Your task to perform on an android device: turn on notifications settings in the gmail app Image 0: 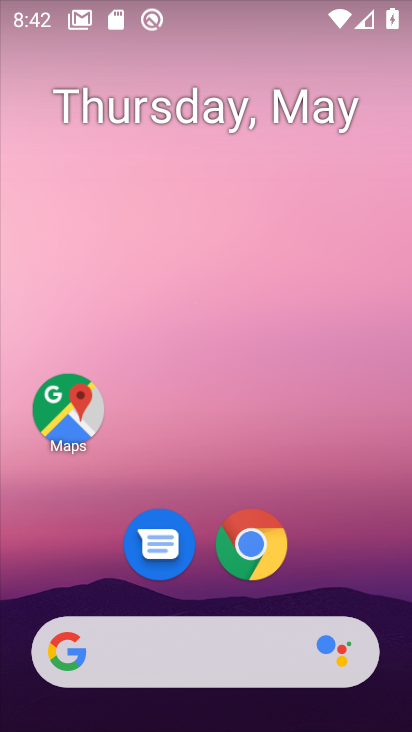
Step 0: drag from (216, 599) to (173, 66)
Your task to perform on an android device: turn on notifications settings in the gmail app Image 1: 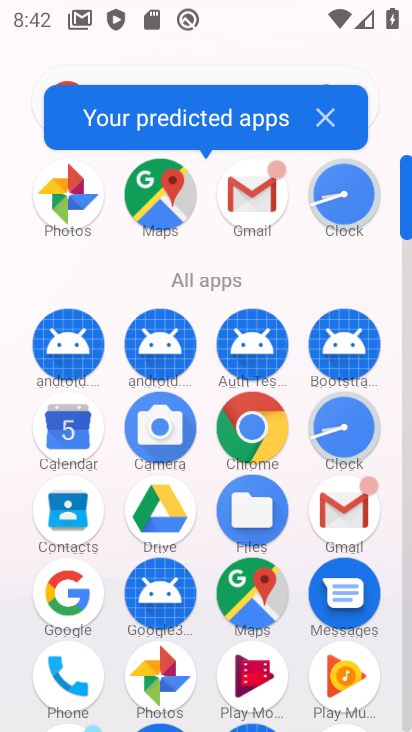
Step 1: click (336, 509)
Your task to perform on an android device: turn on notifications settings in the gmail app Image 2: 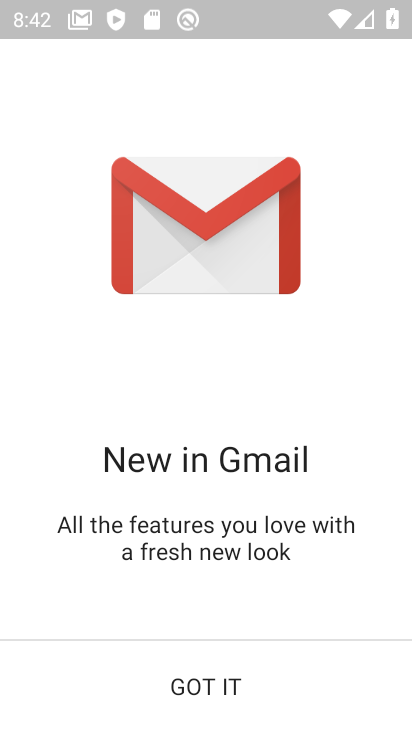
Step 2: click (212, 670)
Your task to perform on an android device: turn on notifications settings in the gmail app Image 3: 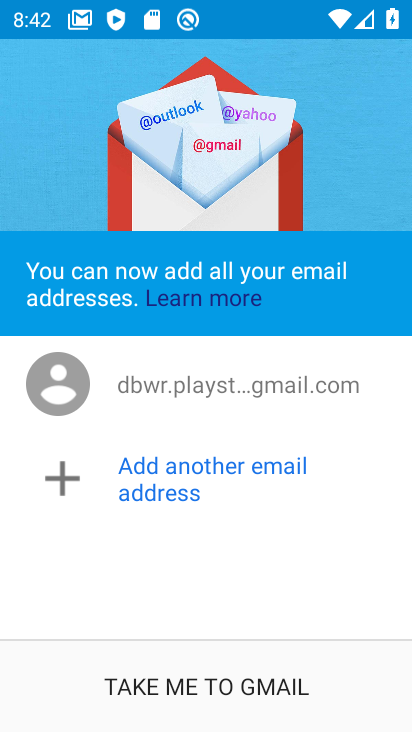
Step 3: click (240, 686)
Your task to perform on an android device: turn on notifications settings in the gmail app Image 4: 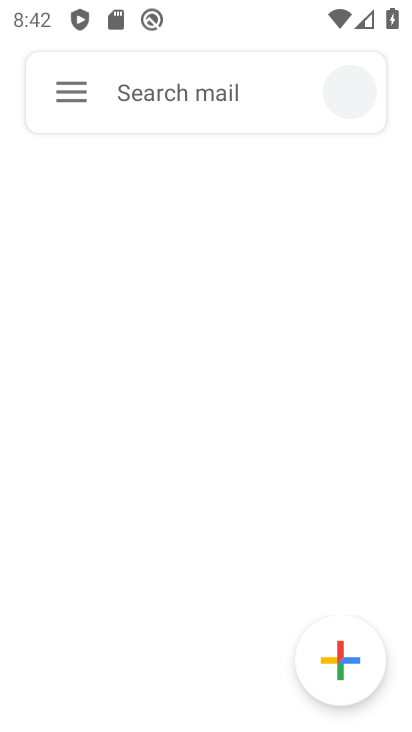
Step 4: click (70, 98)
Your task to perform on an android device: turn on notifications settings in the gmail app Image 5: 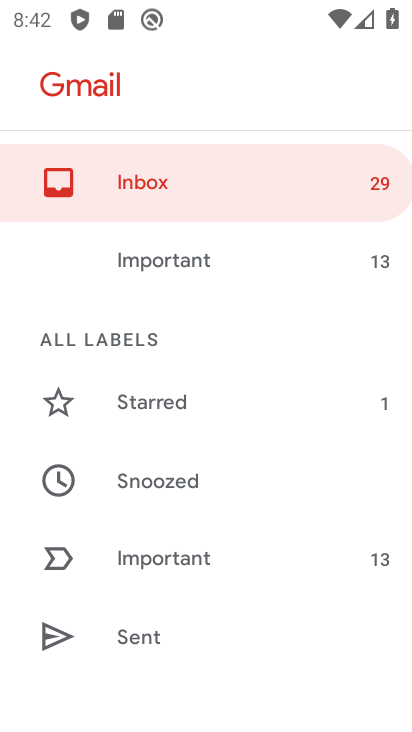
Step 5: drag from (165, 606) to (145, 125)
Your task to perform on an android device: turn on notifications settings in the gmail app Image 6: 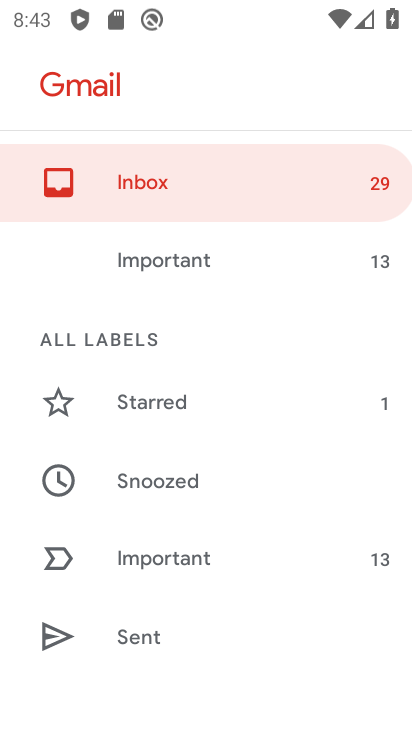
Step 6: drag from (137, 591) to (128, 18)
Your task to perform on an android device: turn on notifications settings in the gmail app Image 7: 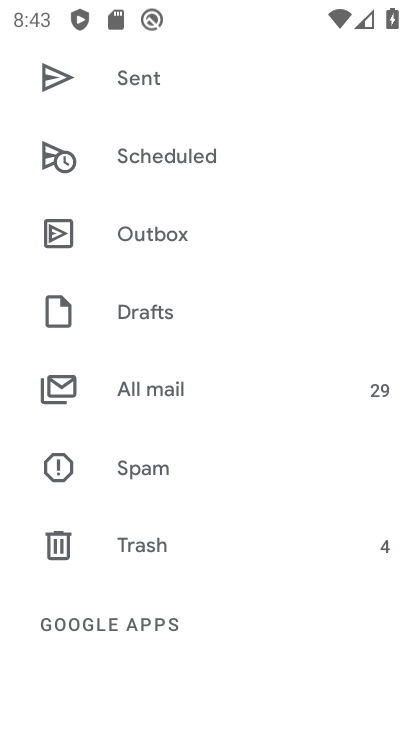
Step 7: drag from (119, 595) to (122, 153)
Your task to perform on an android device: turn on notifications settings in the gmail app Image 8: 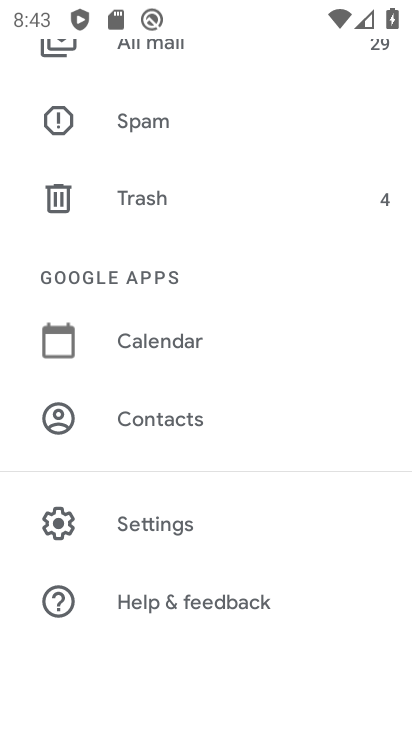
Step 8: click (124, 506)
Your task to perform on an android device: turn on notifications settings in the gmail app Image 9: 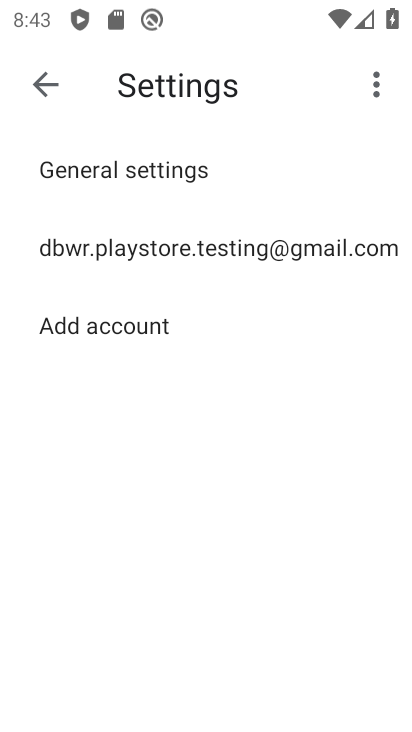
Step 9: click (115, 188)
Your task to perform on an android device: turn on notifications settings in the gmail app Image 10: 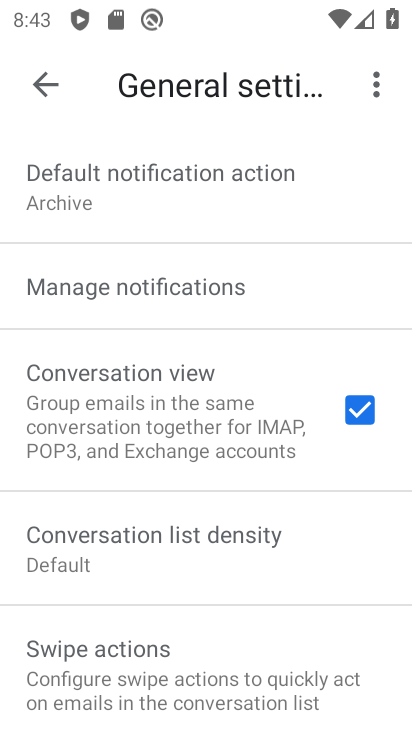
Step 10: click (161, 310)
Your task to perform on an android device: turn on notifications settings in the gmail app Image 11: 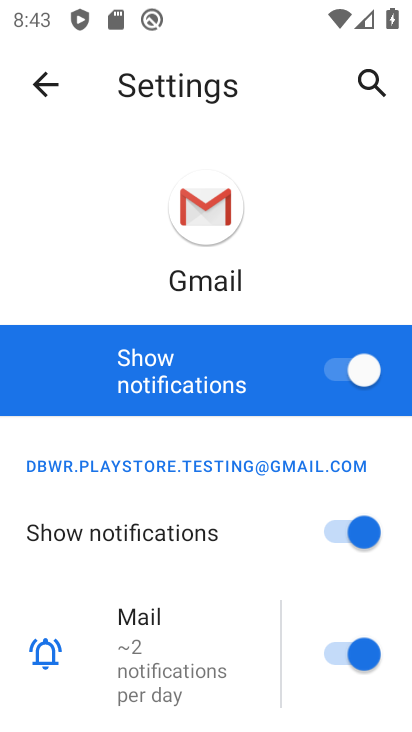
Step 11: task complete